Your task to perform on an android device: Go to Android settings Image 0: 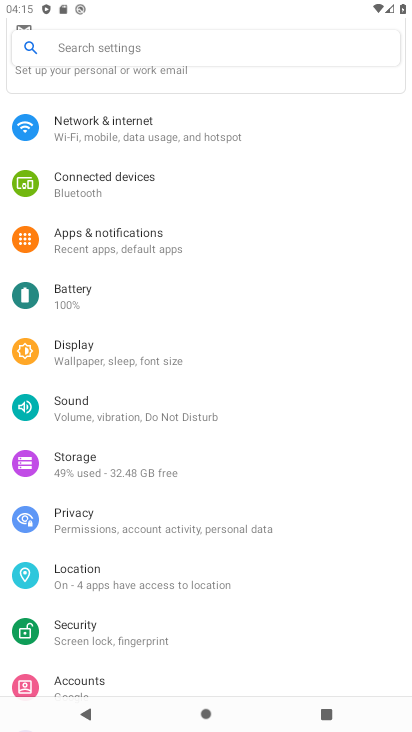
Step 0: press back button
Your task to perform on an android device: Go to Android settings Image 1: 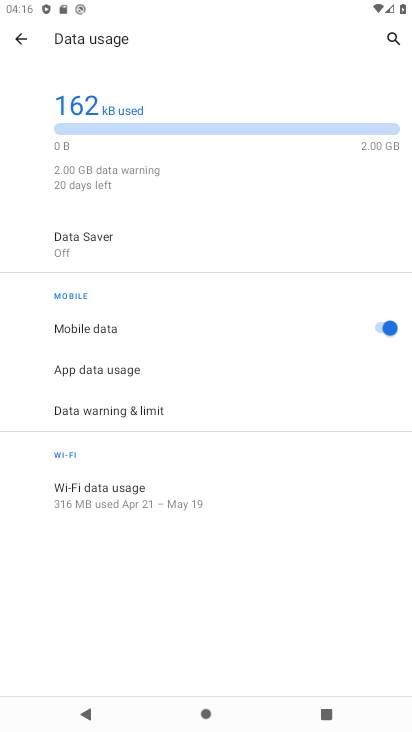
Step 1: press back button
Your task to perform on an android device: Go to Android settings Image 2: 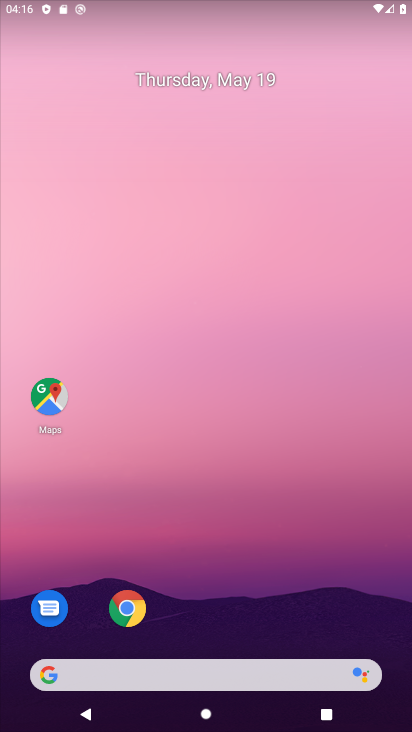
Step 2: drag from (232, 594) to (218, 218)
Your task to perform on an android device: Go to Android settings Image 3: 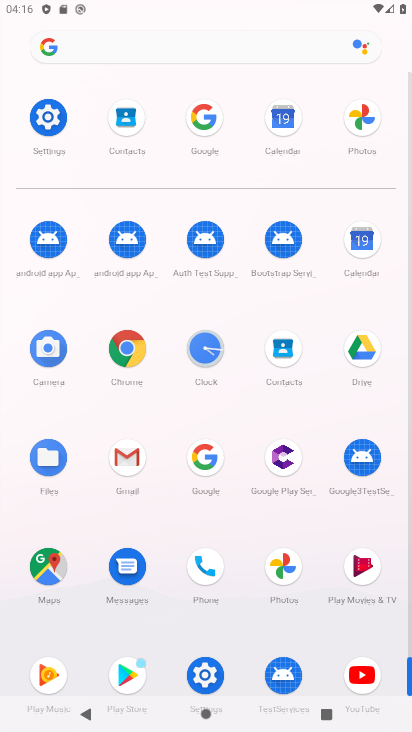
Step 3: click (48, 115)
Your task to perform on an android device: Go to Android settings Image 4: 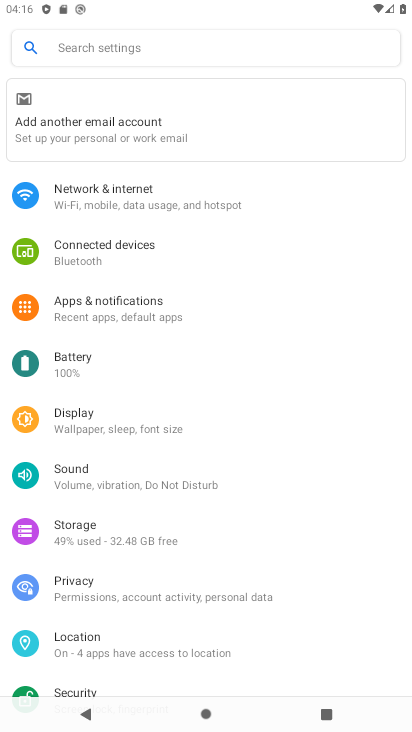
Step 4: task complete